Your task to perform on an android device: Open Google Chrome Image 0: 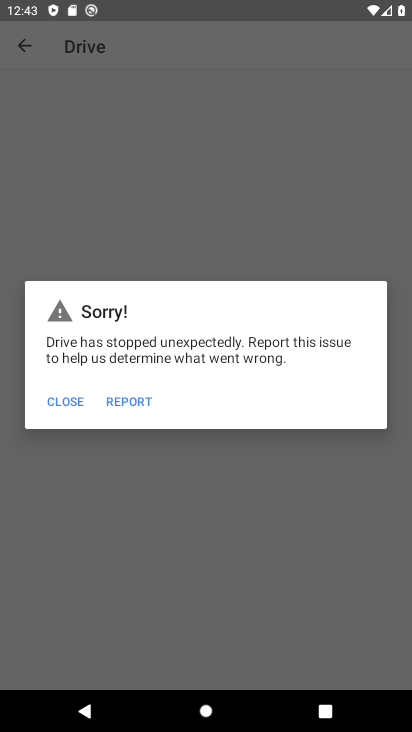
Step 0: press home button
Your task to perform on an android device: Open Google Chrome Image 1: 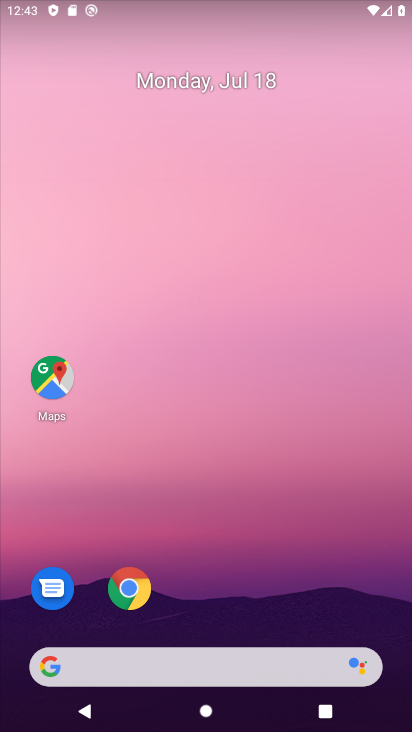
Step 1: click (127, 578)
Your task to perform on an android device: Open Google Chrome Image 2: 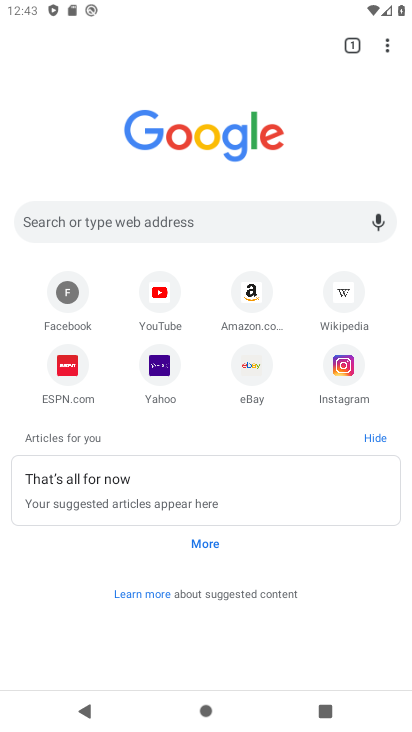
Step 2: task complete